Your task to perform on an android device: turn off smart reply in the gmail app Image 0: 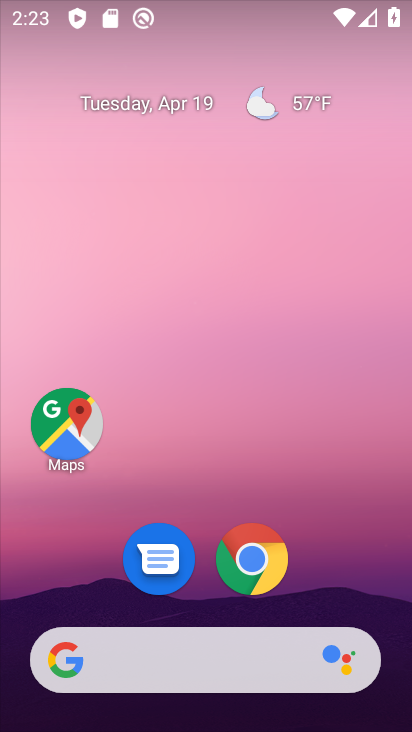
Step 0: drag from (384, 593) to (384, 110)
Your task to perform on an android device: turn off smart reply in the gmail app Image 1: 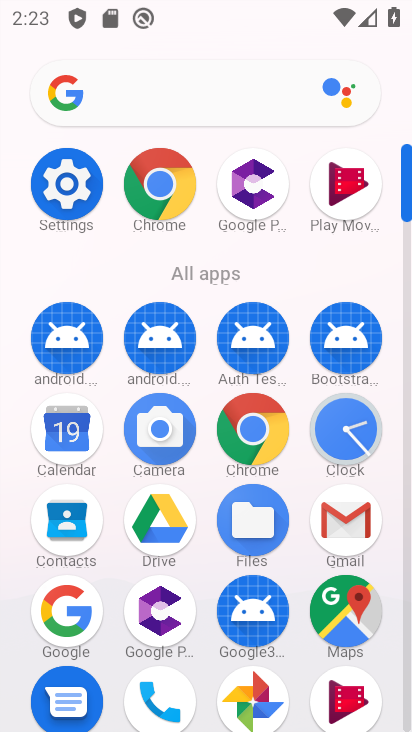
Step 1: click (346, 520)
Your task to perform on an android device: turn off smart reply in the gmail app Image 2: 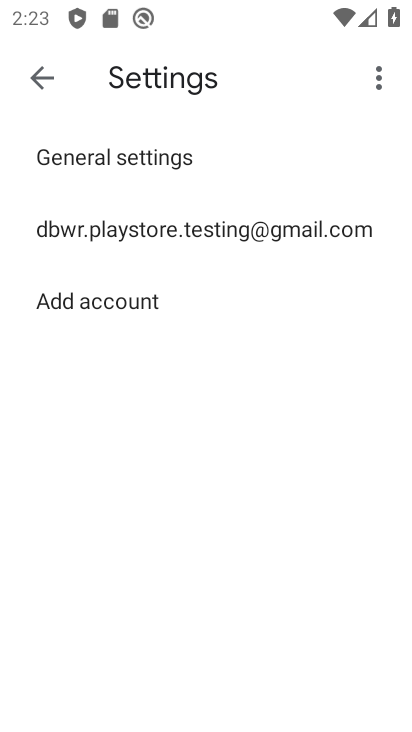
Step 2: click (252, 229)
Your task to perform on an android device: turn off smart reply in the gmail app Image 3: 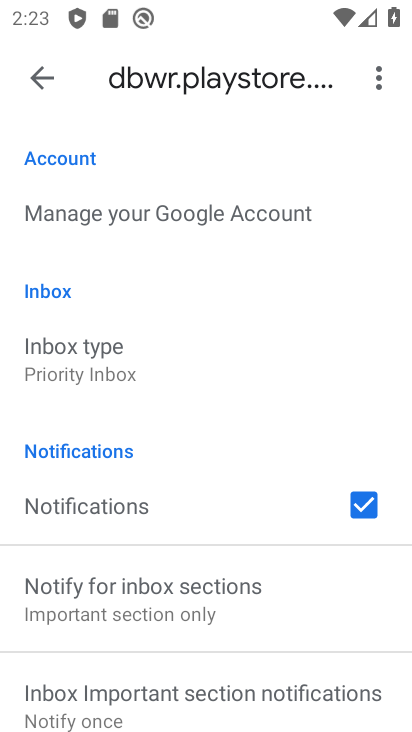
Step 3: drag from (305, 592) to (308, 375)
Your task to perform on an android device: turn off smart reply in the gmail app Image 4: 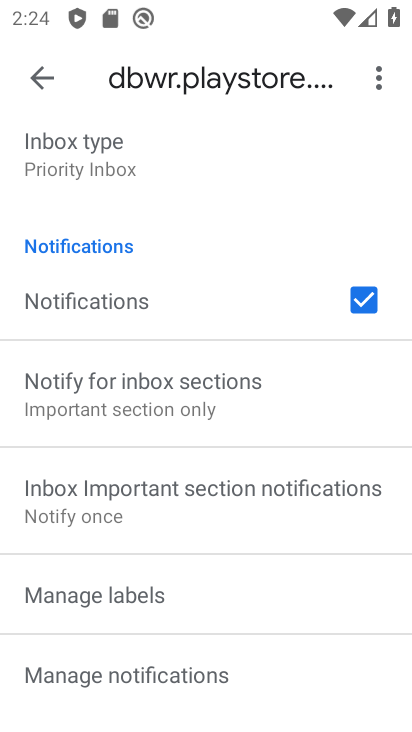
Step 4: drag from (297, 557) to (312, 393)
Your task to perform on an android device: turn off smart reply in the gmail app Image 5: 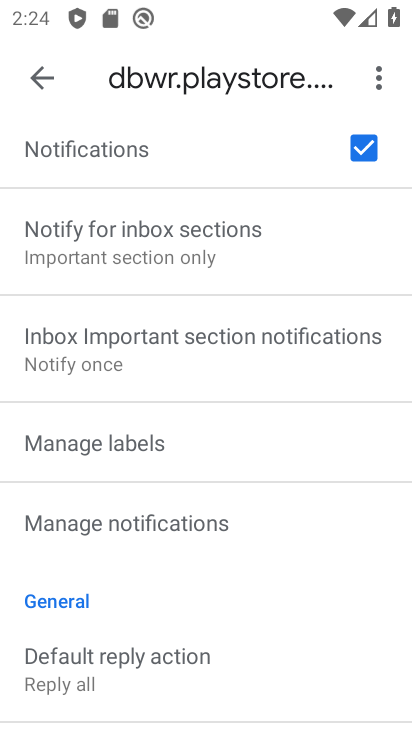
Step 5: drag from (322, 617) to (346, 454)
Your task to perform on an android device: turn off smart reply in the gmail app Image 6: 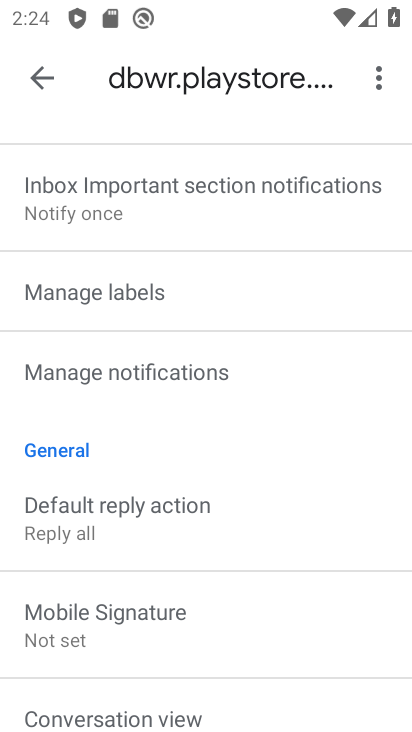
Step 6: drag from (335, 589) to (347, 471)
Your task to perform on an android device: turn off smart reply in the gmail app Image 7: 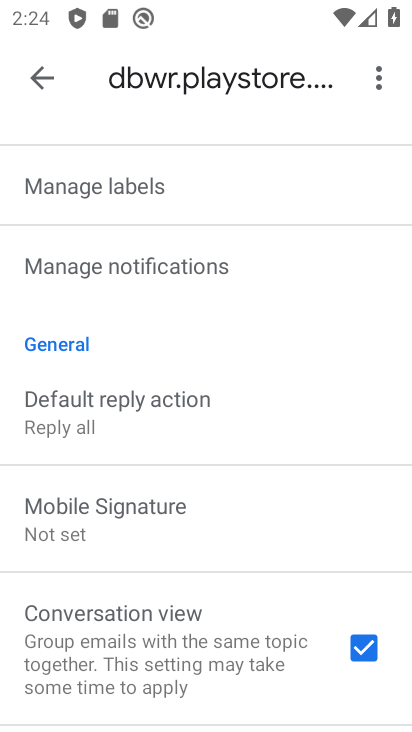
Step 7: drag from (308, 617) to (306, 472)
Your task to perform on an android device: turn off smart reply in the gmail app Image 8: 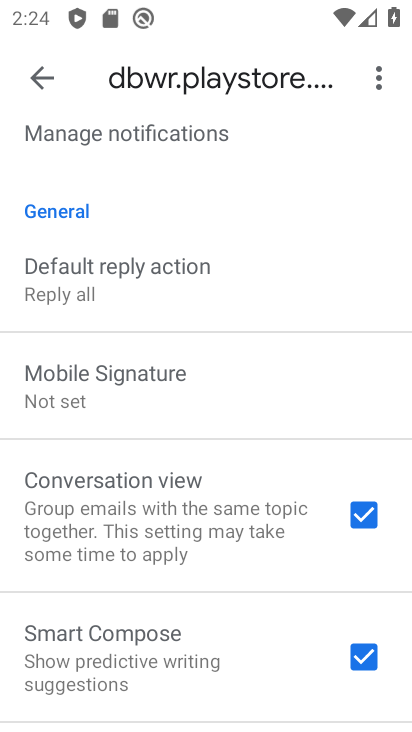
Step 8: drag from (300, 634) to (296, 447)
Your task to perform on an android device: turn off smart reply in the gmail app Image 9: 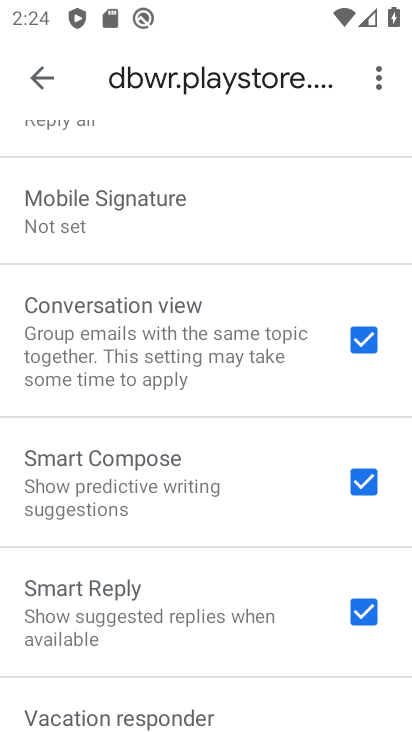
Step 9: drag from (288, 619) to (293, 524)
Your task to perform on an android device: turn off smart reply in the gmail app Image 10: 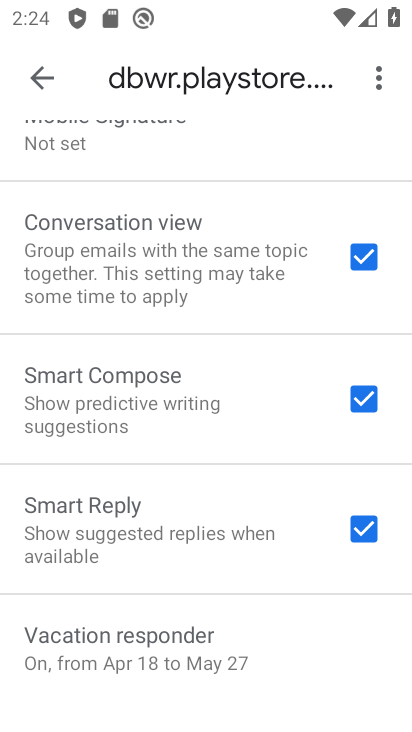
Step 10: drag from (294, 637) to (288, 473)
Your task to perform on an android device: turn off smart reply in the gmail app Image 11: 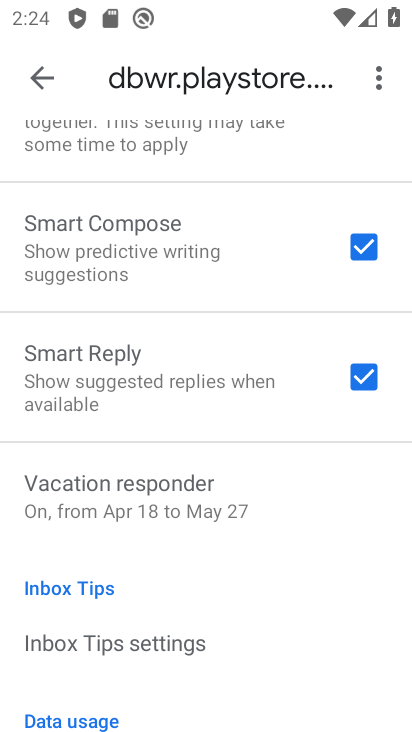
Step 11: click (352, 378)
Your task to perform on an android device: turn off smart reply in the gmail app Image 12: 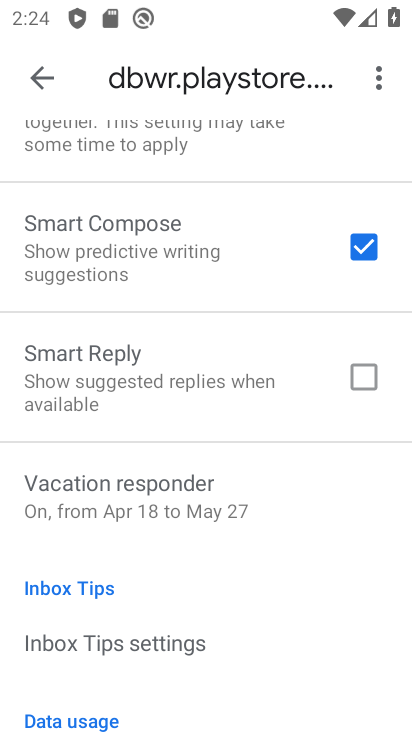
Step 12: task complete